Your task to perform on an android device: turn on javascript in the chrome app Image 0: 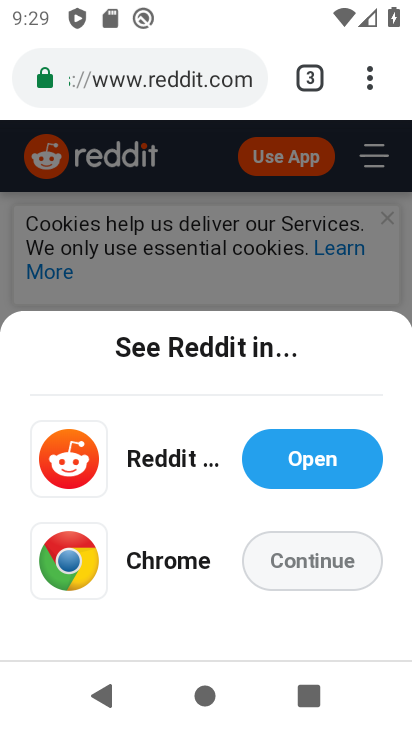
Step 0: click (374, 64)
Your task to perform on an android device: turn on javascript in the chrome app Image 1: 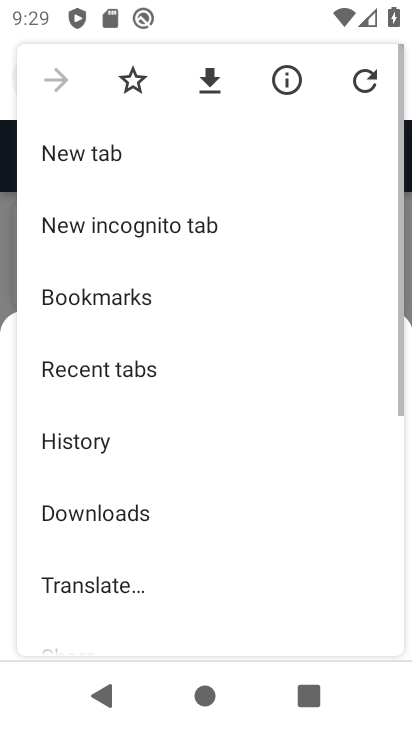
Step 1: drag from (166, 484) to (180, 139)
Your task to perform on an android device: turn on javascript in the chrome app Image 2: 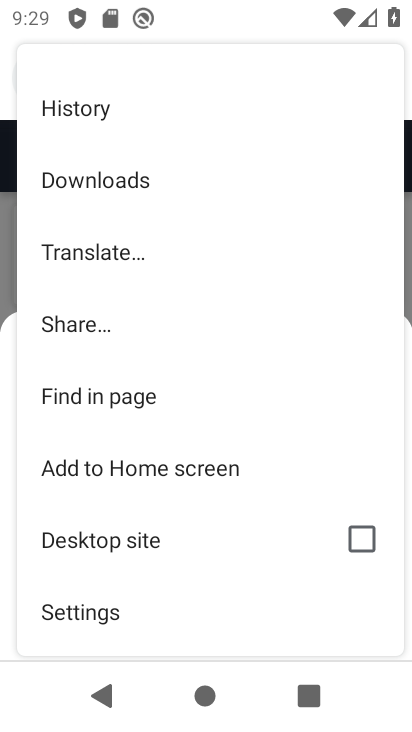
Step 2: click (129, 606)
Your task to perform on an android device: turn on javascript in the chrome app Image 3: 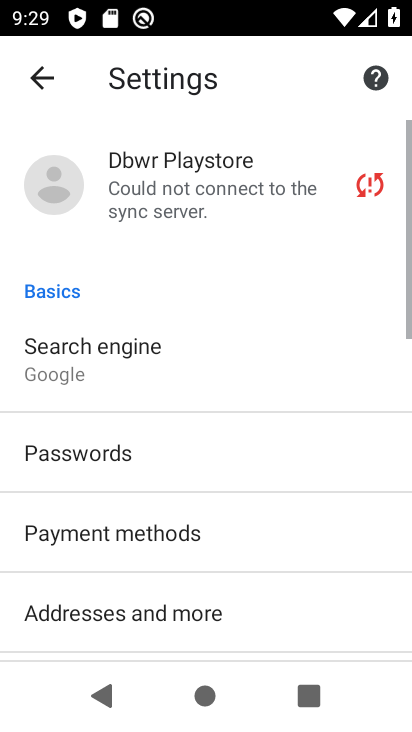
Step 3: drag from (133, 594) to (173, 198)
Your task to perform on an android device: turn on javascript in the chrome app Image 4: 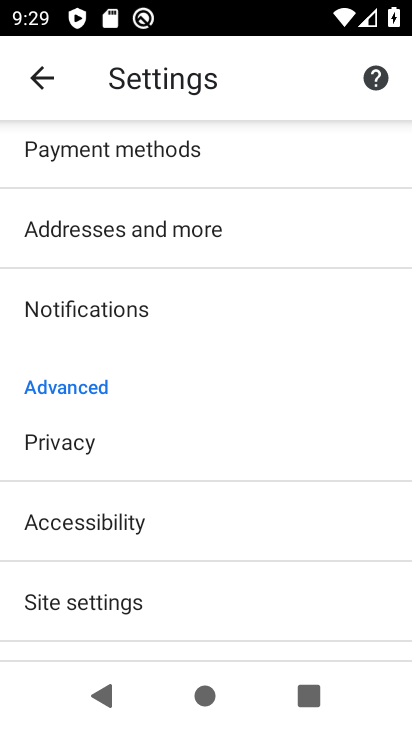
Step 4: click (174, 586)
Your task to perform on an android device: turn on javascript in the chrome app Image 5: 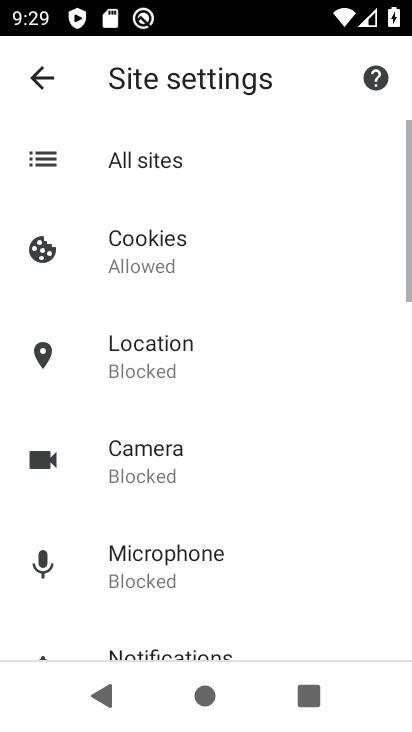
Step 5: drag from (164, 551) to (152, 146)
Your task to perform on an android device: turn on javascript in the chrome app Image 6: 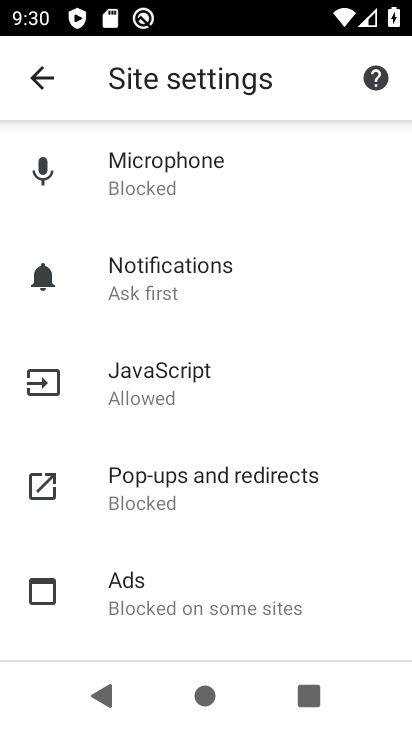
Step 6: click (171, 367)
Your task to perform on an android device: turn on javascript in the chrome app Image 7: 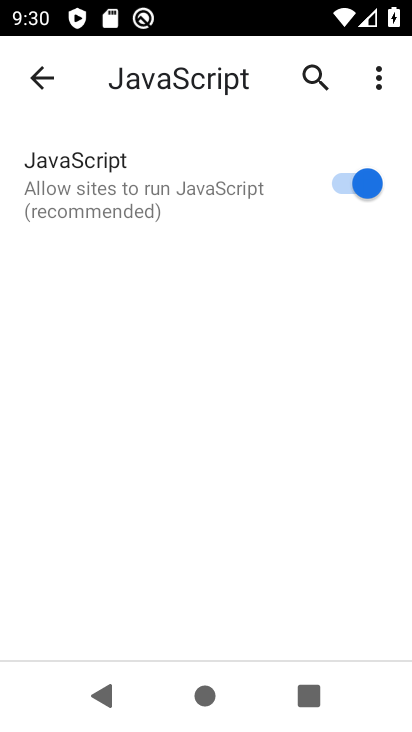
Step 7: task complete